Your task to perform on an android device: Open the Play Movies app and select the watchlist tab. Image 0: 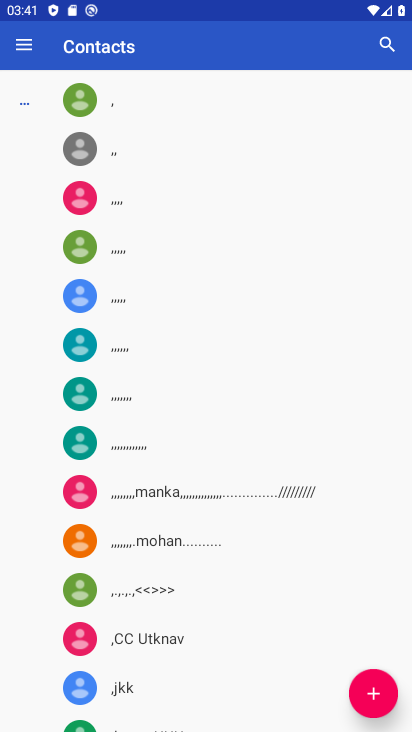
Step 0: press home button
Your task to perform on an android device: Open the Play Movies app and select the watchlist tab. Image 1: 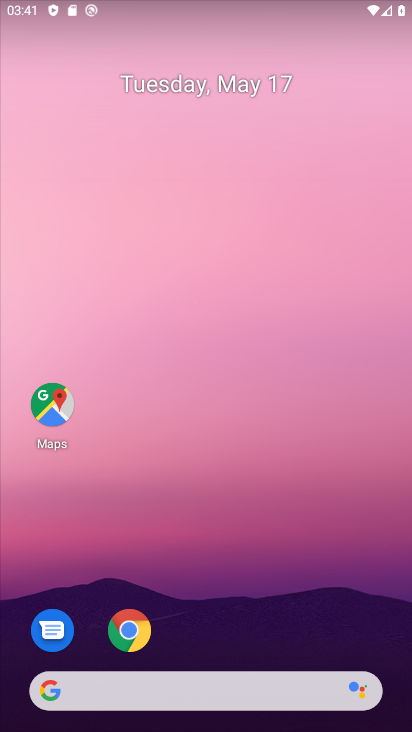
Step 1: drag from (189, 660) to (277, 192)
Your task to perform on an android device: Open the Play Movies app and select the watchlist tab. Image 2: 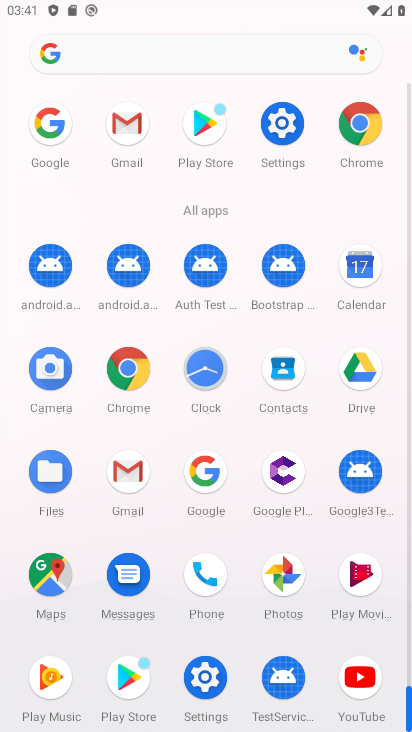
Step 2: click (347, 575)
Your task to perform on an android device: Open the Play Movies app and select the watchlist tab. Image 3: 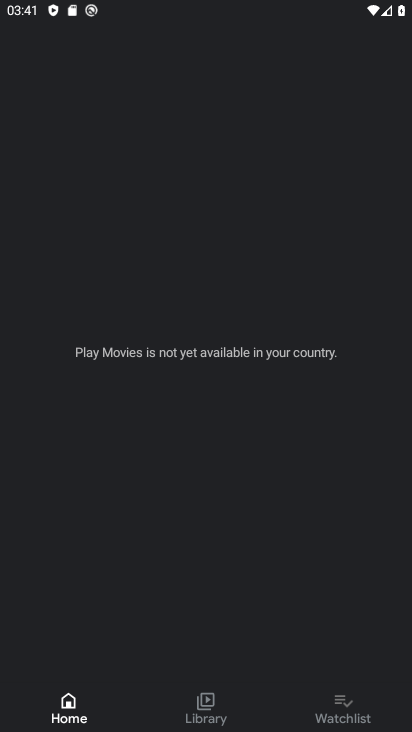
Step 3: task complete